Your task to perform on an android device: toggle wifi Image 0: 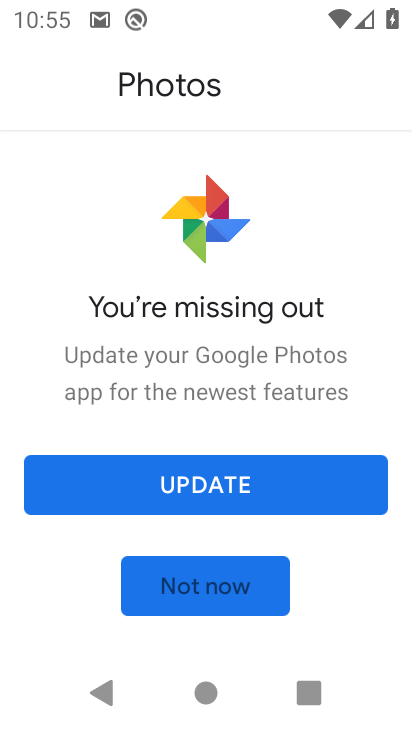
Step 0: click (185, 607)
Your task to perform on an android device: toggle wifi Image 1: 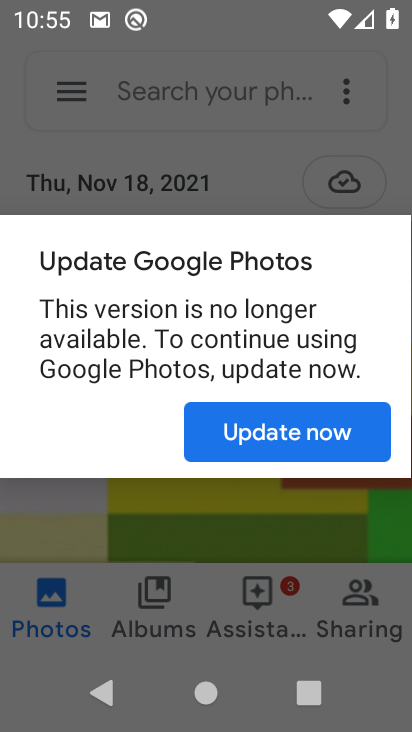
Step 1: press home button
Your task to perform on an android device: toggle wifi Image 2: 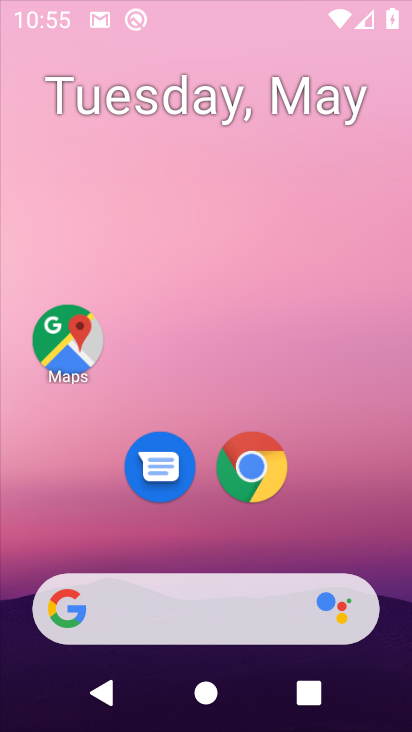
Step 2: drag from (170, 558) to (374, 79)
Your task to perform on an android device: toggle wifi Image 3: 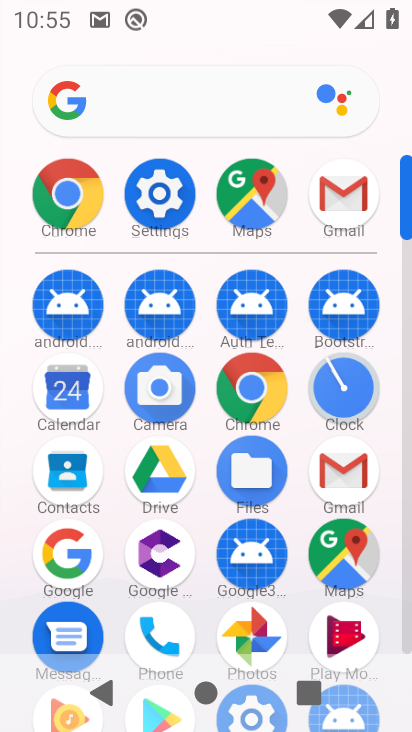
Step 3: click (141, 199)
Your task to perform on an android device: toggle wifi Image 4: 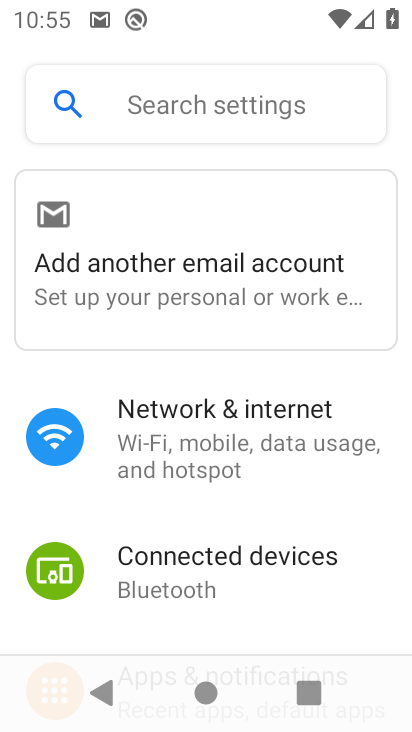
Step 4: click (189, 446)
Your task to perform on an android device: toggle wifi Image 5: 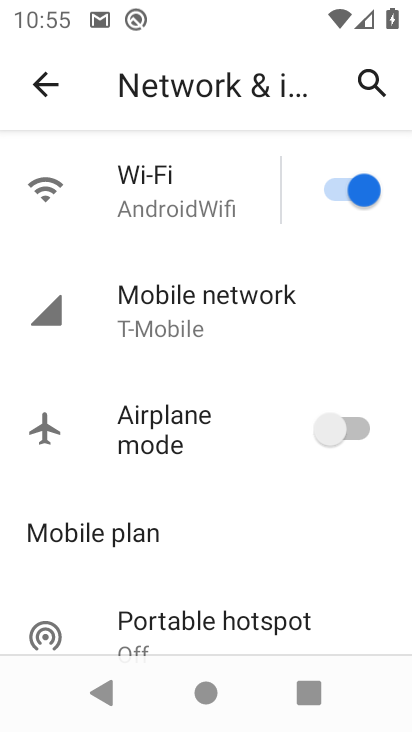
Step 5: click (368, 180)
Your task to perform on an android device: toggle wifi Image 6: 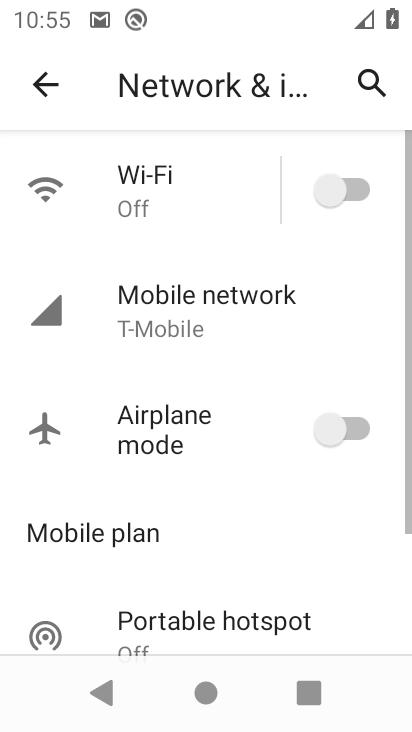
Step 6: task complete